Your task to perform on an android device: Search for seafood restaurants on Google Maps Image 0: 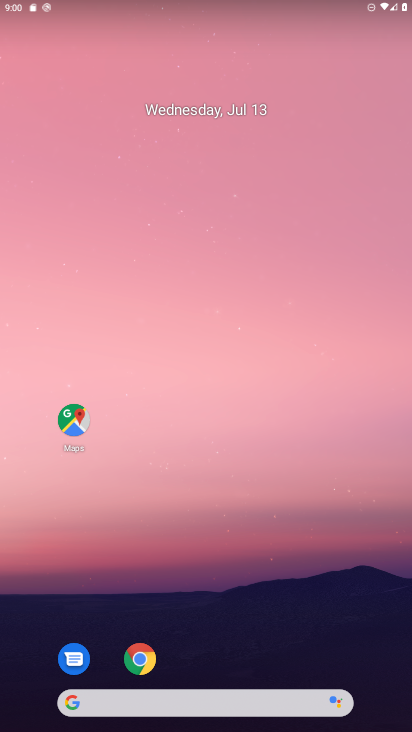
Step 0: drag from (244, 655) to (241, 119)
Your task to perform on an android device: Search for seafood restaurants on Google Maps Image 1: 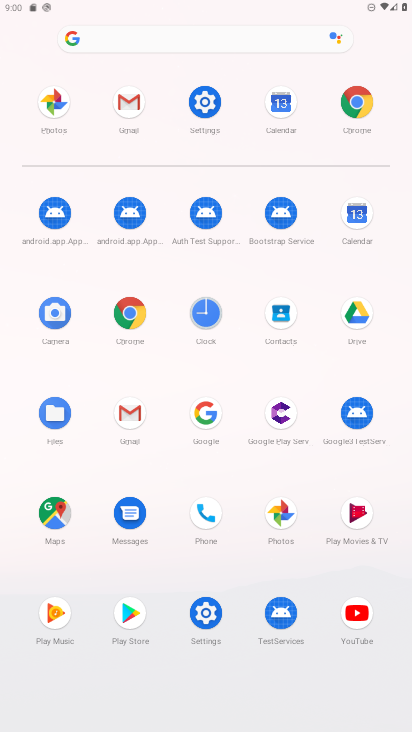
Step 1: click (50, 517)
Your task to perform on an android device: Search for seafood restaurants on Google Maps Image 2: 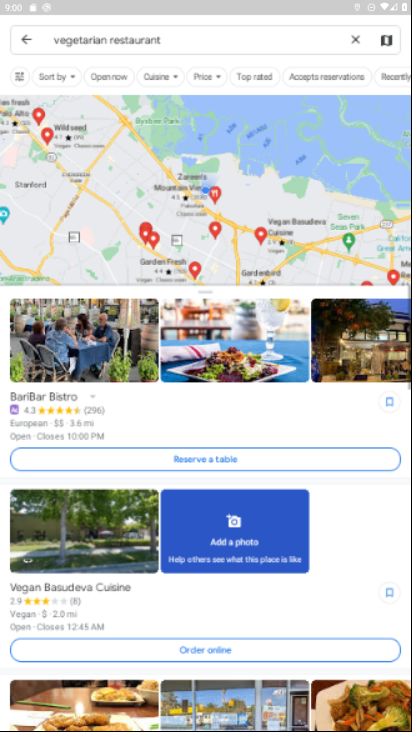
Step 2: click (264, 42)
Your task to perform on an android device: Search for seafood restaurants on Google Maps Image 3: 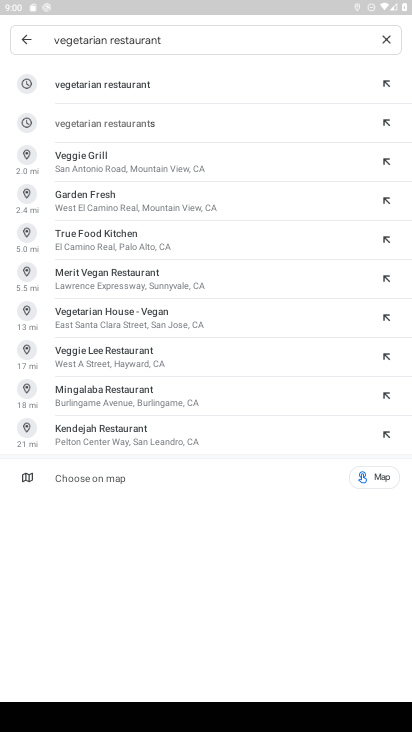
Step 3: click (379, 38)
Your task to perform on an android device: Search for seafood restaurants on Google Maps Image 4: 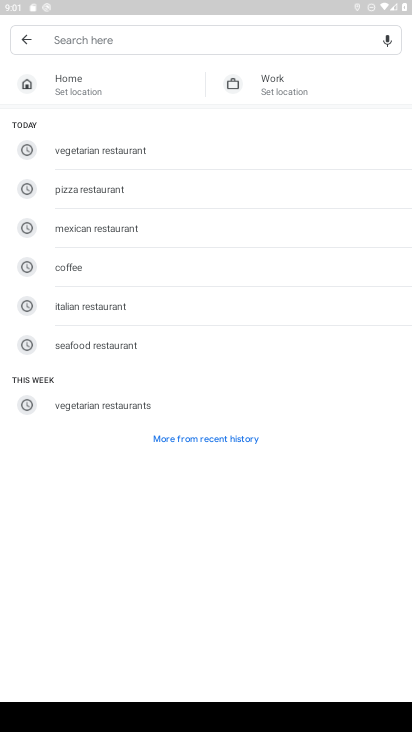
Step 4: click (105, 347)
Your task to perform on an android device: Search for seafood restaurants on Google Maps Image 5: 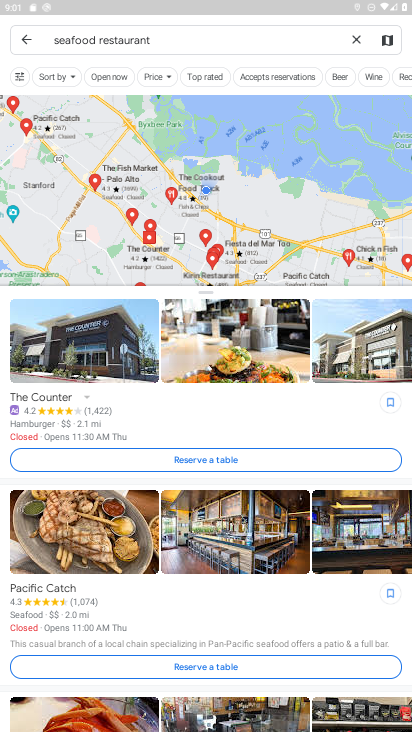
Step 5: task complete